Your task to perform on an android device: Open settings Image 0: 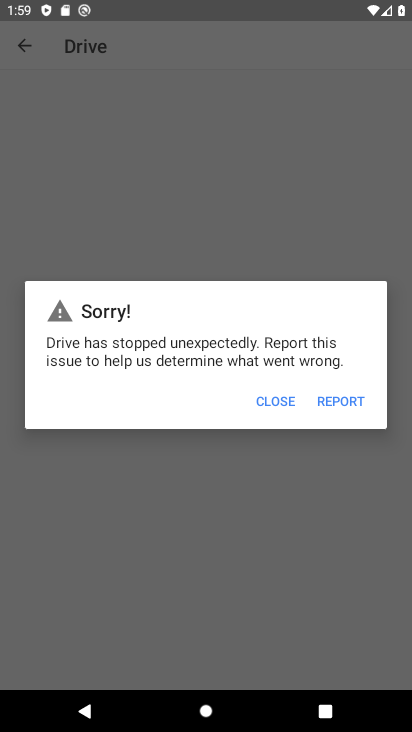
Step 0: press home button
Your task to perform on an android device: Open settings Image 1: 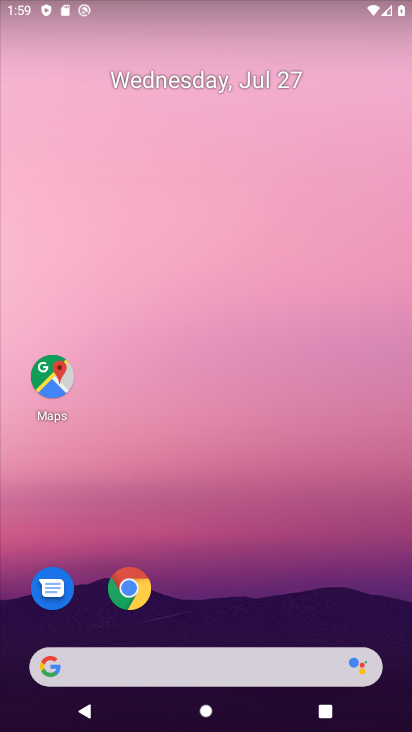
Step 1: drag from (210, 615) to (211, 166)
Your task to perform on an android device: Open settings Image 2: 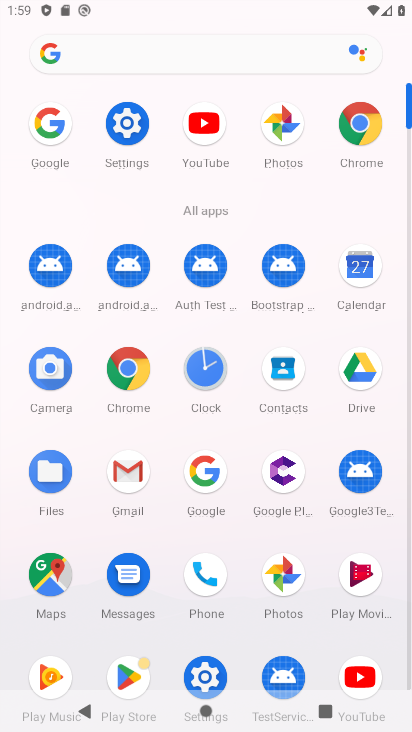
Step 2: click (129, 135)
Your task to perform on an android device: Open settings Image 3: 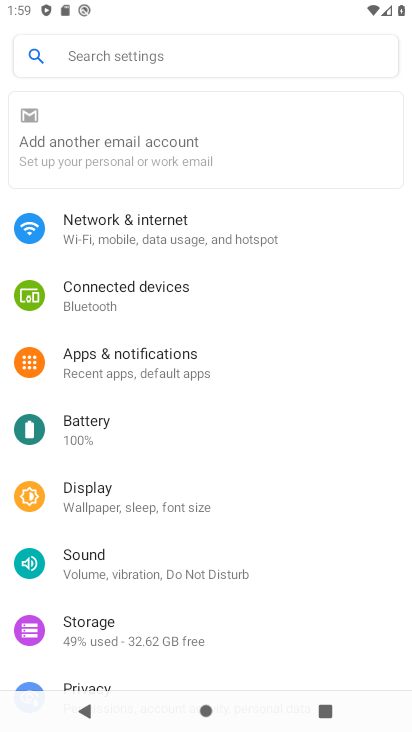
Step 3: task complete